Your task to perform on an android device: allow notifications from all sites in the chrome app Image 0: 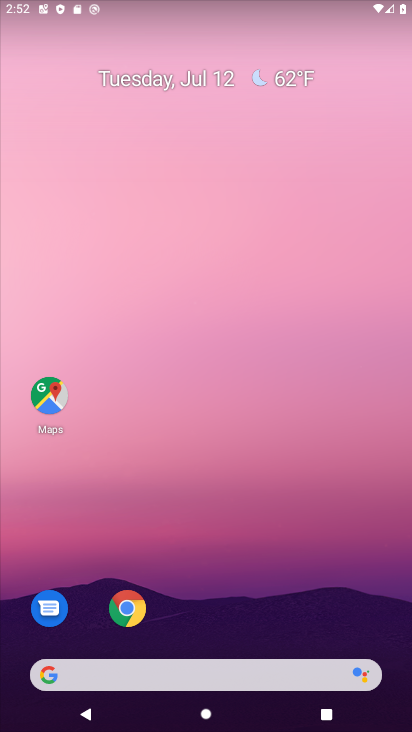
Step 0: press home button
Your task to perform on an android device: allow notifications from all sites in the chrome app Image 1: 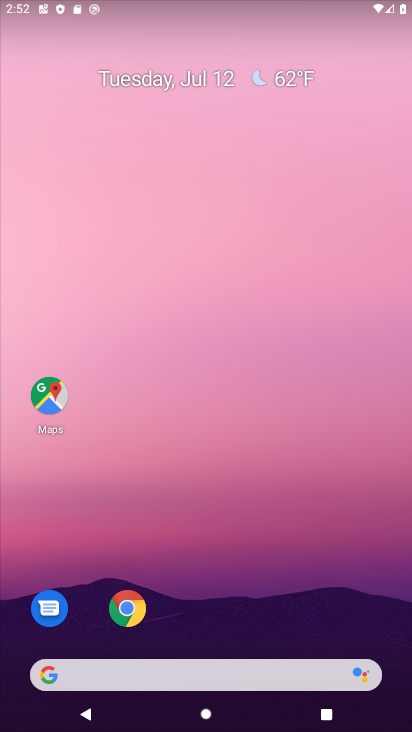
Step 1: click (129, 616)
Your task to perform on an android device: allow notifications from all sites in the chrome app Image 2: 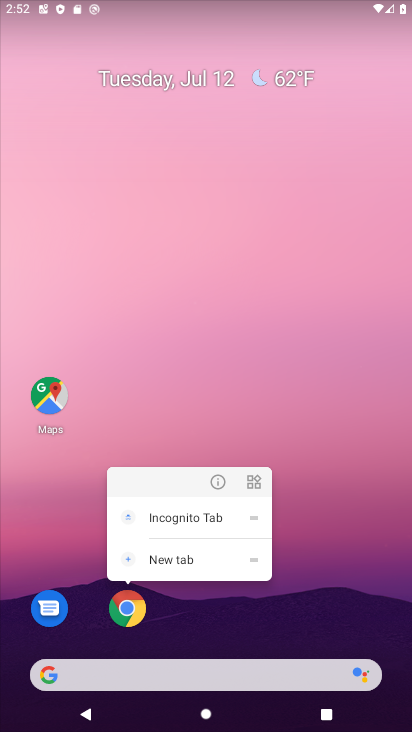
Step 2: click (129, 616)
Your task to perform on an android device: allow notifications from all sites in the chrome app Image 3: 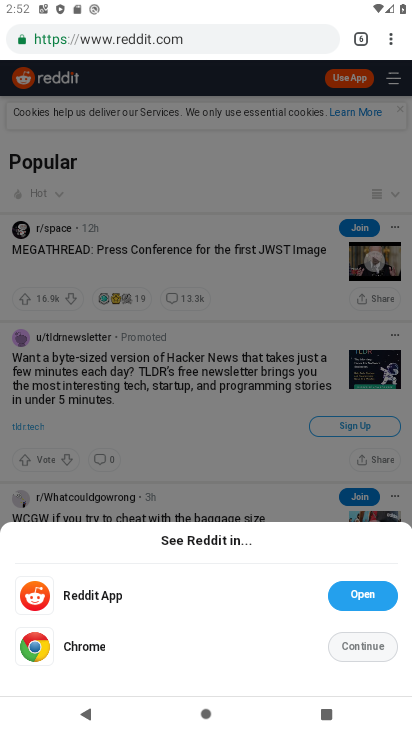
Step 3: drag from (390, 44) to (253, 472)
Your task to perform on an android device: allow notifications from all sites in the chrome app Image 4: 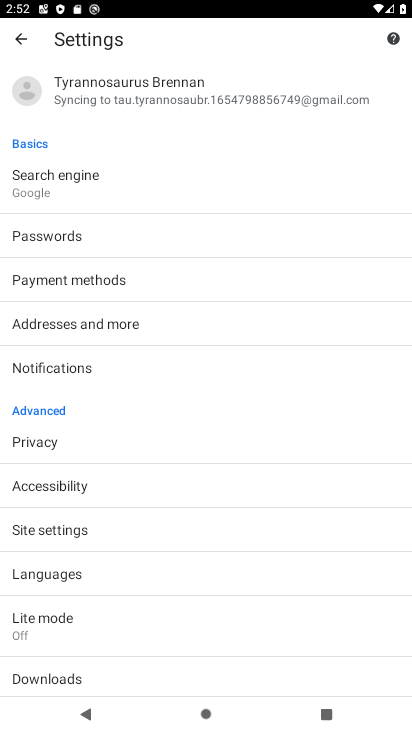
Step 4: click (86, 529)
Your task to perform on an android device: allow notifications from all sites in the chrome app Image 5: 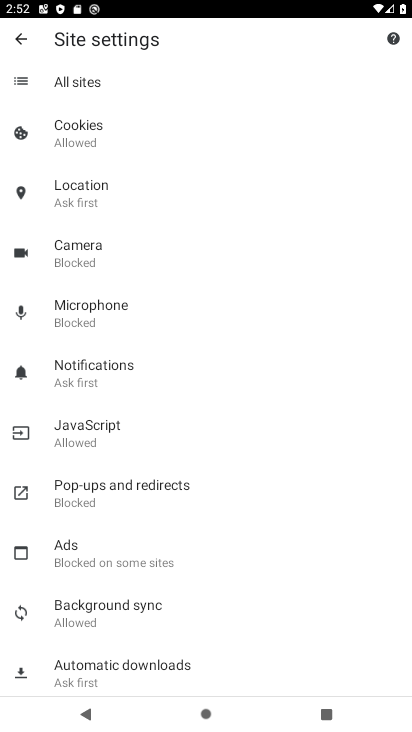
Step 5: click (125, 374)
Your task to perform on an android device: allow notifications from all sites in the chrome app Image 6: 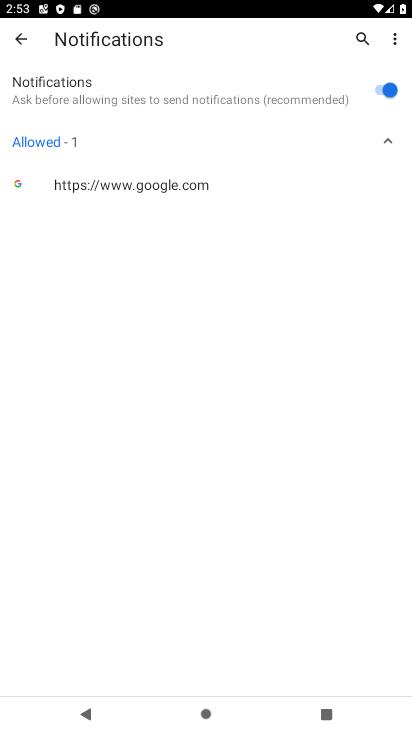
Step 6: task complete